Your task to perform on an android device: turn on the 24-hour format for clock Image 0: 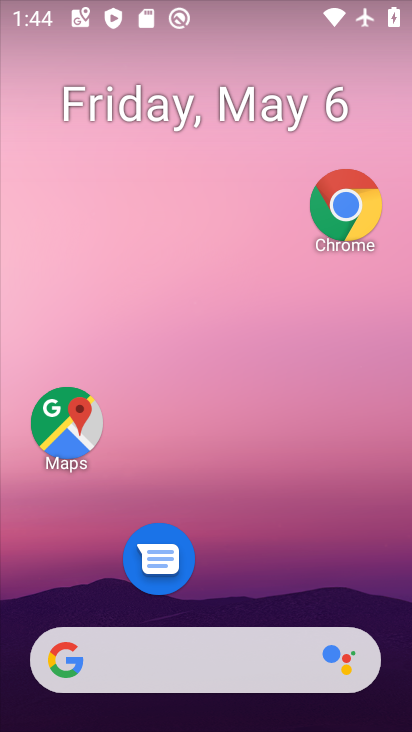
Step 0: drag from (203, 644) to (293, 129)
Your task to perform on an android device: turn on the 24-hour format for clock Image 1: 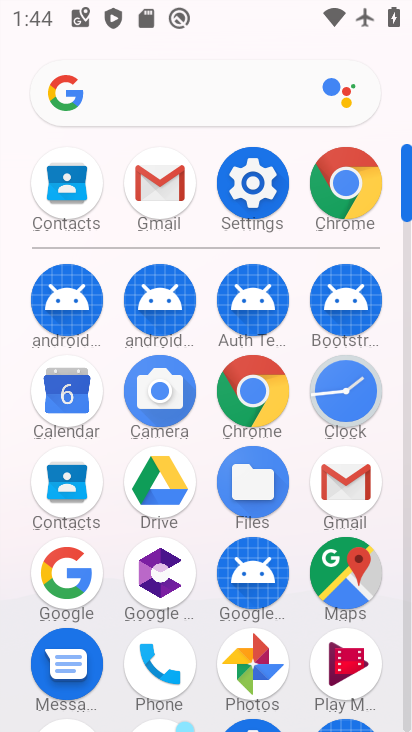
Step 1: click (344, 404)
Your task to perform on an android device: turn on the 24-hour format for clock Image 2: 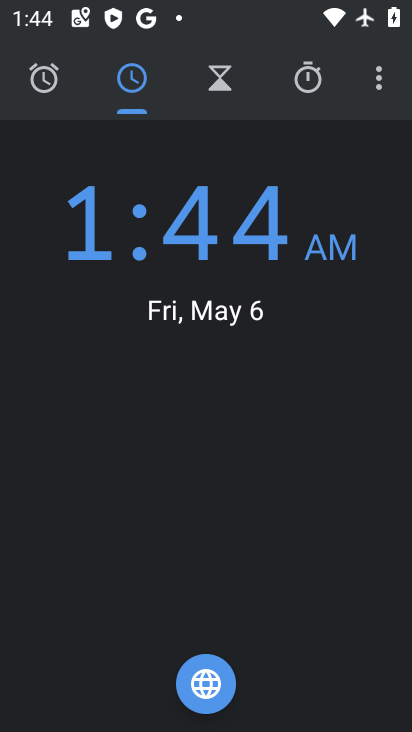
Step 2: click (380, 91)
Your task to perform on an android device: turn on the 24-hour format for clock Image 3: 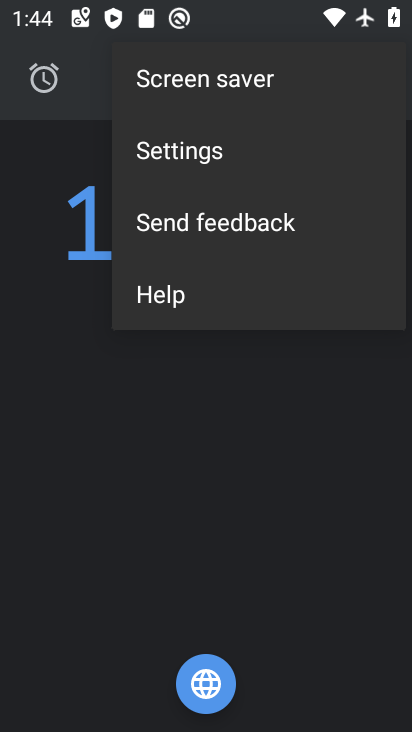
Step 3: click (202, 151)
Your task to perform on an android device: turn on the 24-hour format for clock Image 4: 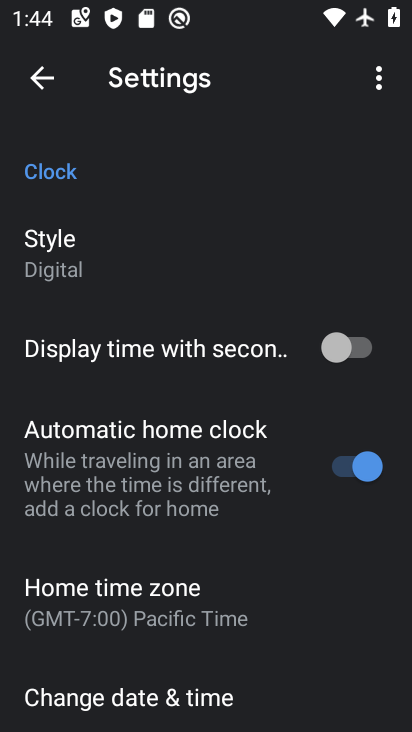
Step 4: drag from (206, 676) to (341, 159)
Your task to perform on an android device: turn on the 24-hour format for clock Image 5: 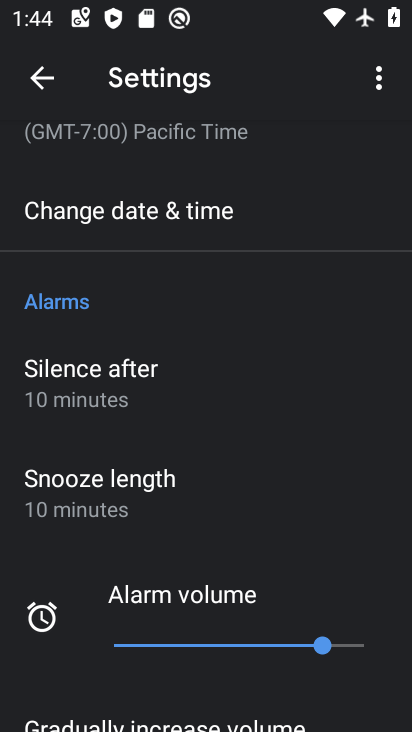
Step 5: click (210, 213)
Your task to perform on an android device: turn on the 24-hour format for clock Image 6: 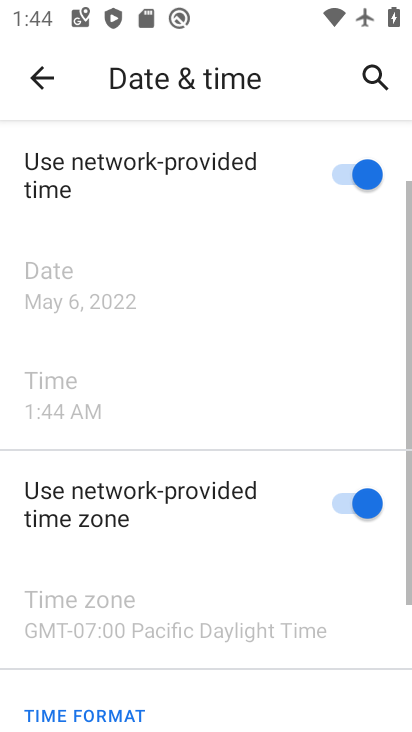
Step 6: drag from (224, 590) to (359, 117)
Your task to perform on an android device: turn on the 24-hour format for clock Image 7: 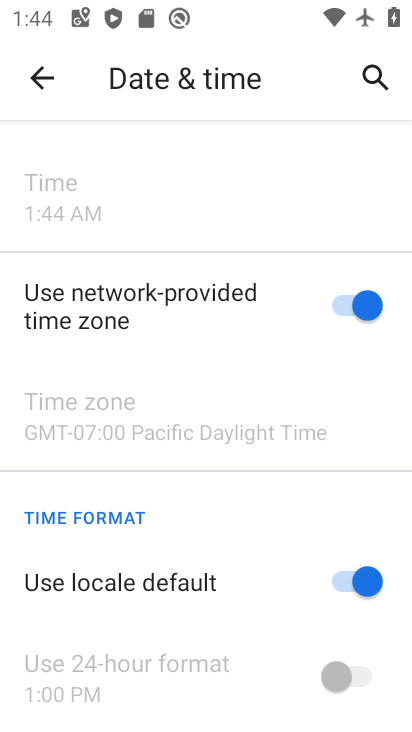
Step 7: click (338, 582)
Your task to perform on an android device: turn on the 24-hour format for clock Image 8: 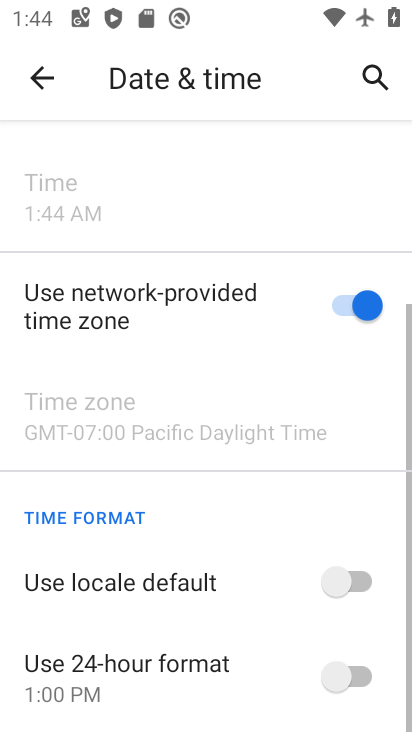
Step 8: click (359, 680)
Your task to perform on an android device: turn on the 24-hour format for clock Image 9: 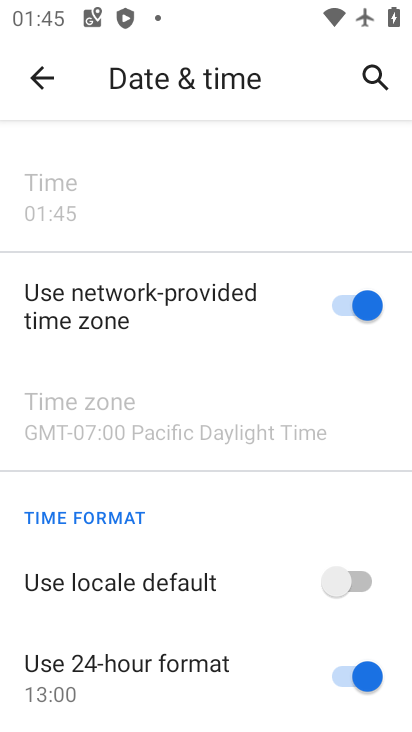
Step 9: task complete